Your task to perform on an android device: Search for sushi restaurants on Maps Image 0: 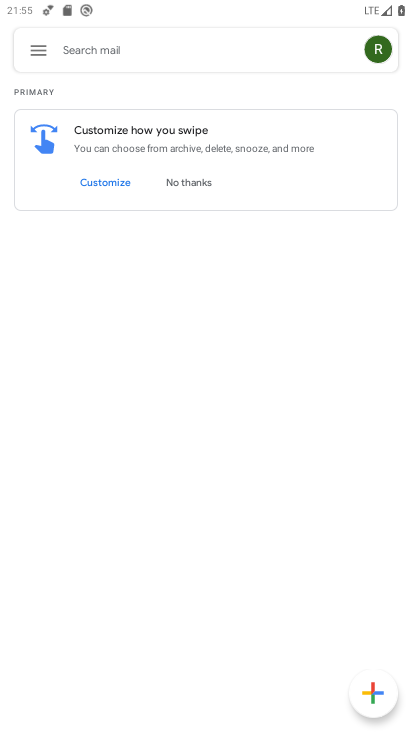
Step 0: press home button
Your task to perform on an android device: Search for sushi restaurants on Maps Image 1: 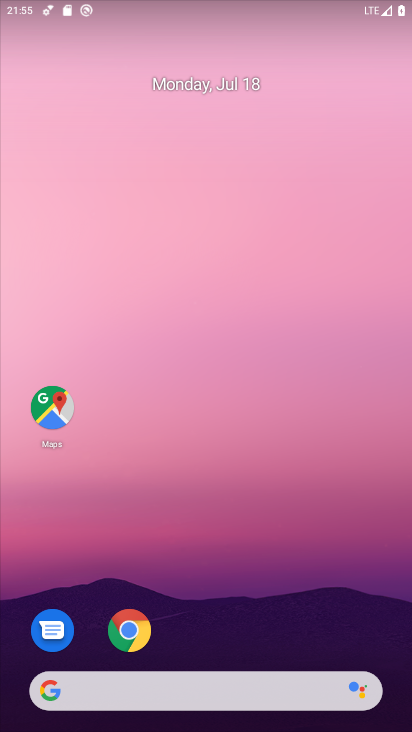
Step 1: drag from (196, 601) to (196, 262)
Your task to perform on an android device: Search for sushi restaurants on Maps Image 2: 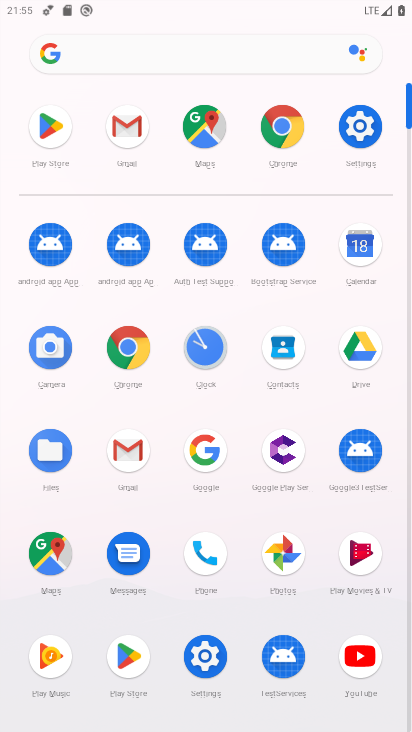
Step 2: click (195, 126)
Your task to perform on an android device: Search for sushi restaurants on Maps Image 3: 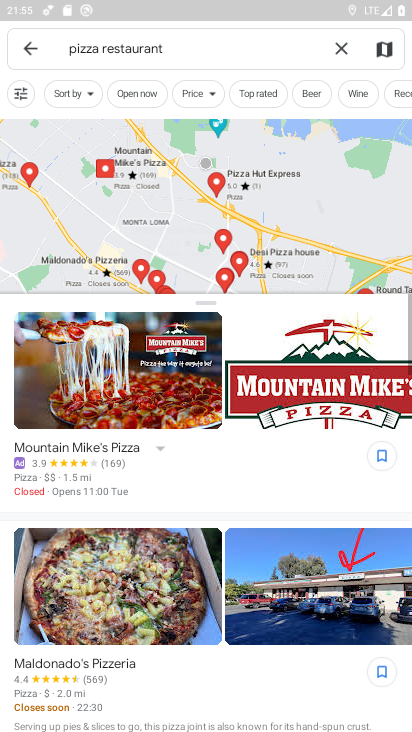
Step 3: click (331, 39)
Your task to perform on an android device: Search for sushi restaurants on Maps Image 4: 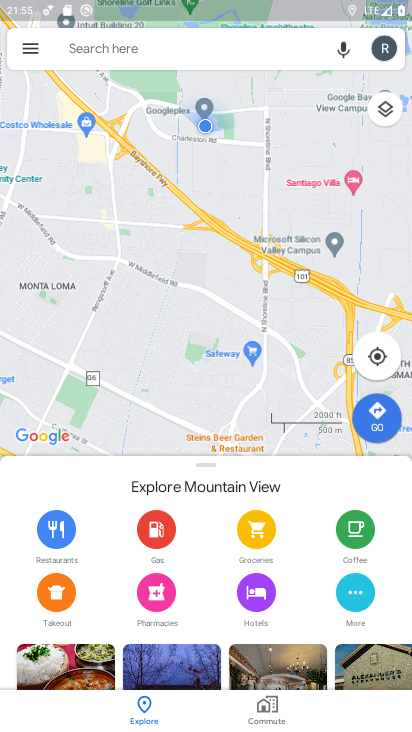
Step 4: click (227, 57)
Your task to perform on an android device: Search for sushi restaurants on Maps Image 5: 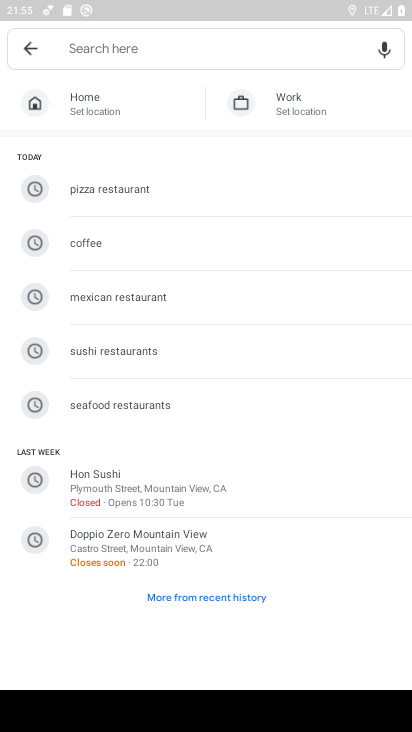
Step 5: click (145, 347)
Your task to perform on an android device: Search for sushi restaurants on Maps Image 6: 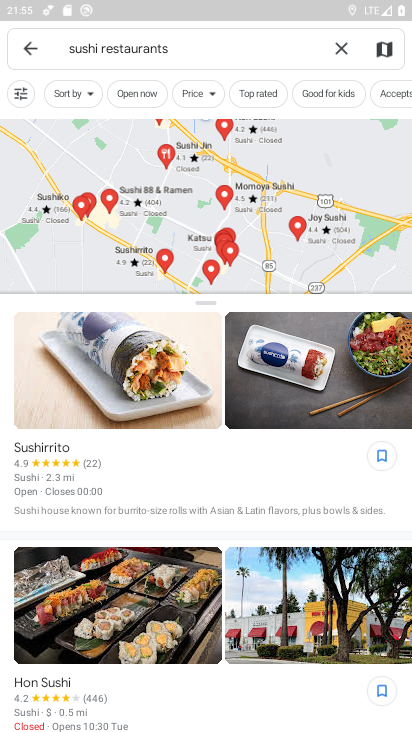
Step 6: task complete